Your task to perform on an android device: all mails in gmail Image 0: 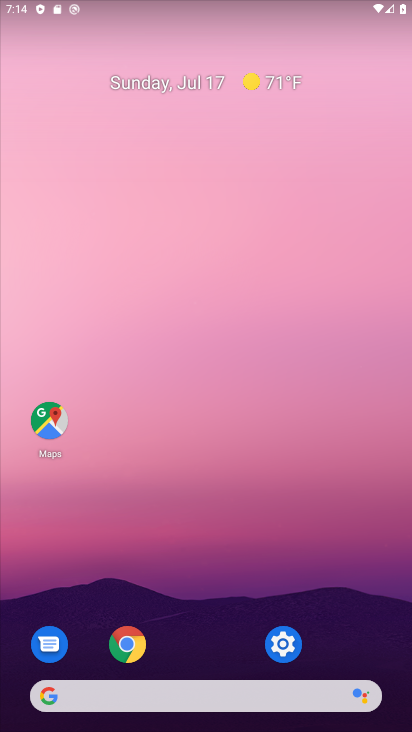
Step 0: drag from (318, 380) to (273, 59)
Your task to perform on an android device: all mails in gmail Image 1: 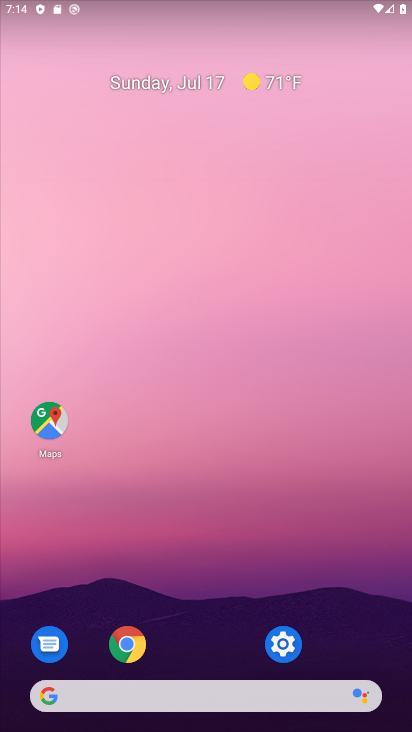
Step 1: drag from (243, 668) to (201, 5)
Your task to perform on an android device: all mails in gmail Image 2: 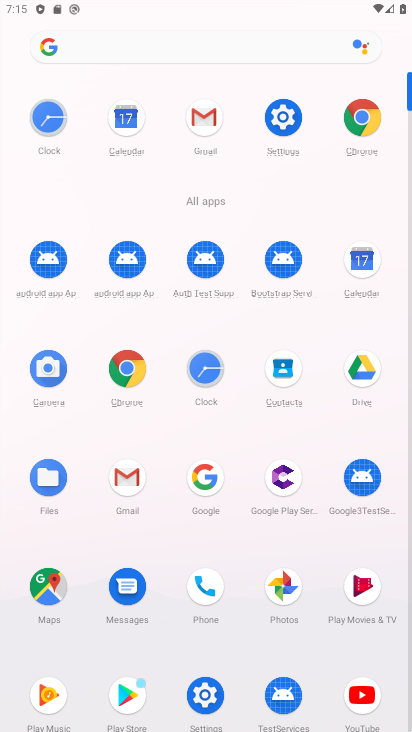
Step 2: click (189, 130)
Your task to perform on an android device: all mails in gmail Image 3: 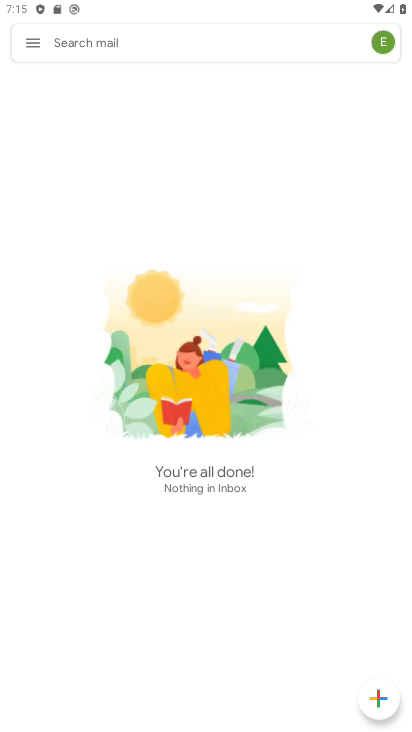
Step 3: click (32, 56)
Your task to perform on an android device: all mails in gmail Image 4: 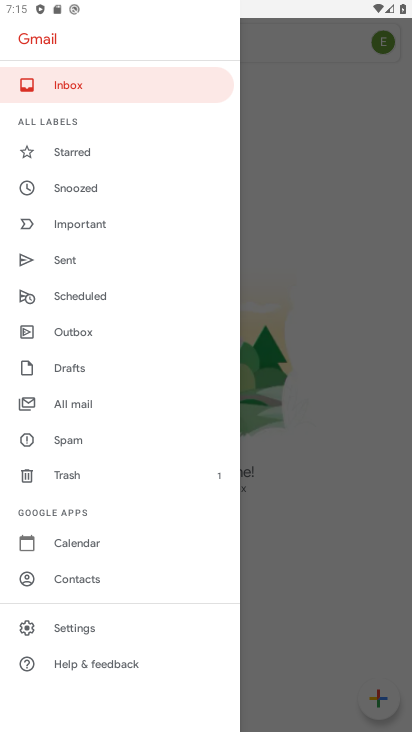
Step 4: click (59, 397)
Your task to perform on an android device: all mails in gmail Image 5: 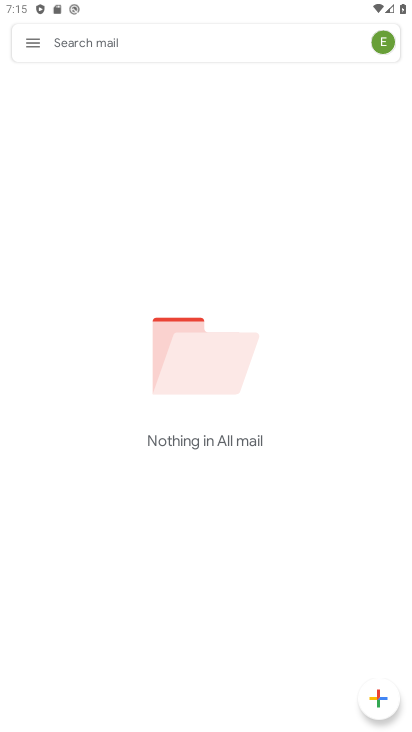
Step 5: task complete